Your task to perform on an android device: Do I have any events today? Image 0: 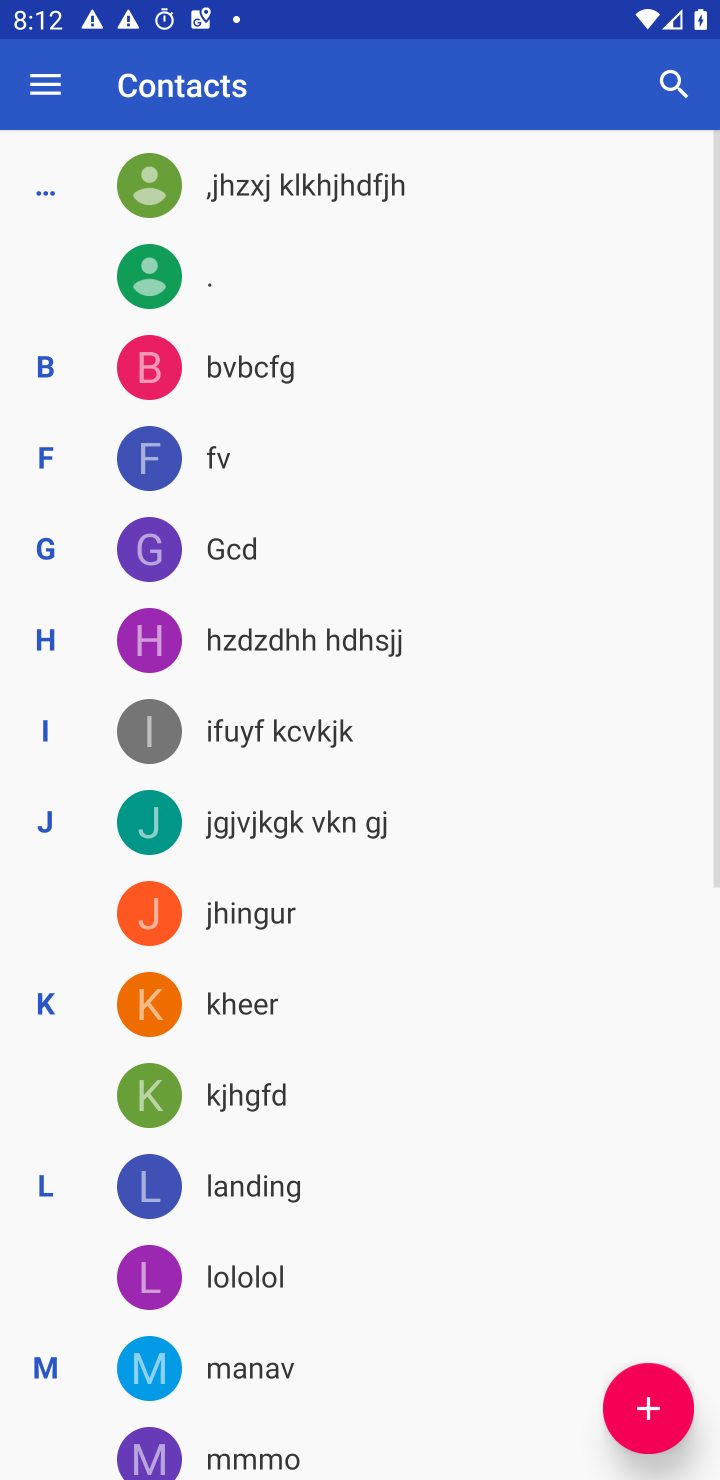
Step 0: press home button
Your task to perform on an android device: Do I have any events today? Image 1: 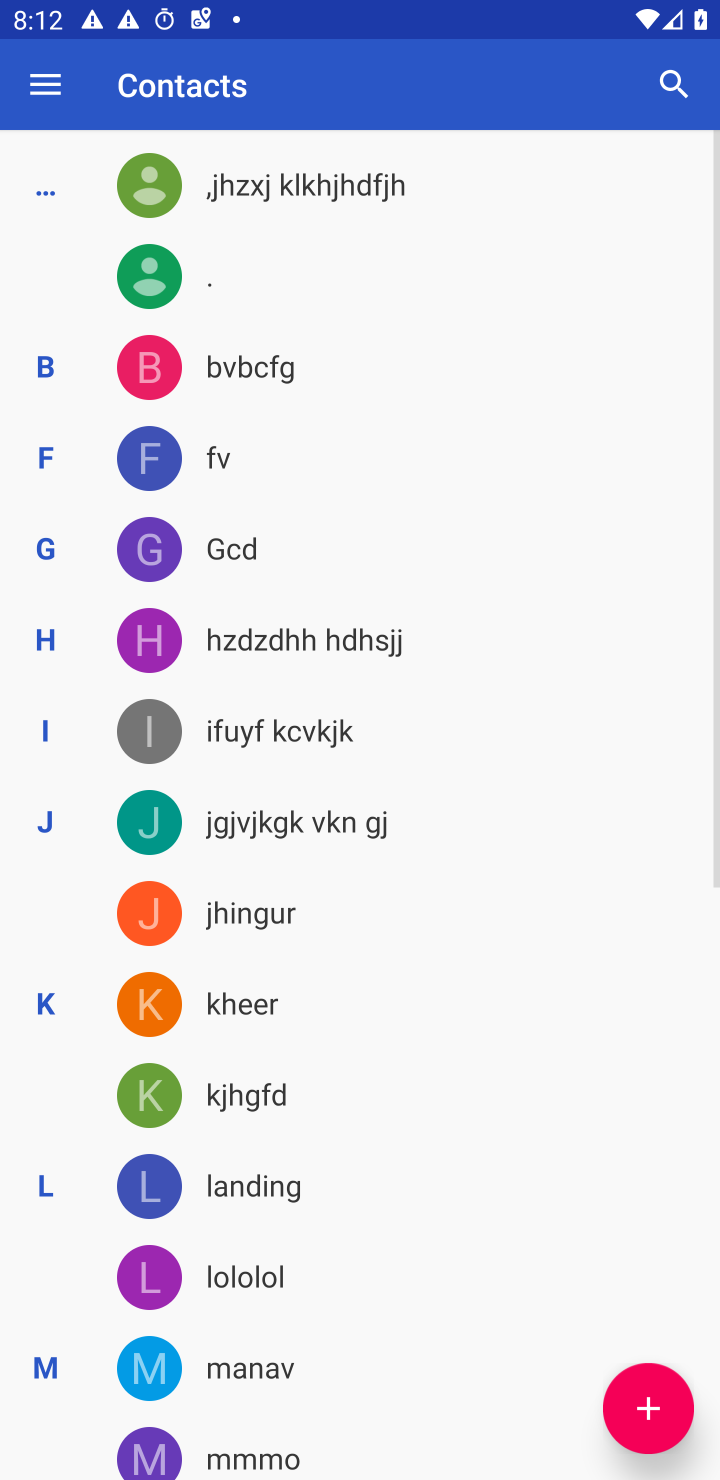
Step 1: drag from (313, 348) to (461, 405)
Your task to perform on an android device: Do I have any events today? Image 2: 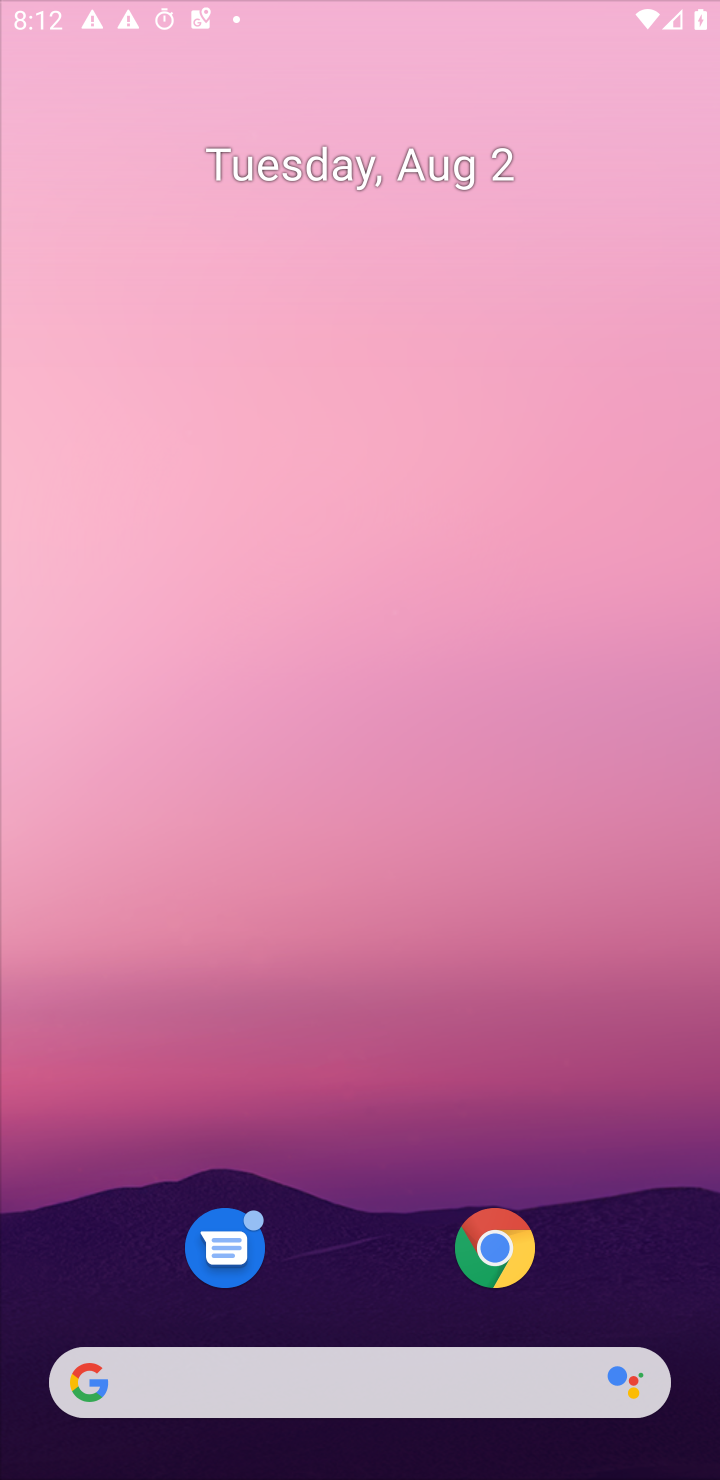
Step 2: press home button
Your task to perform on an android device: Do I have any events today? Image 3: 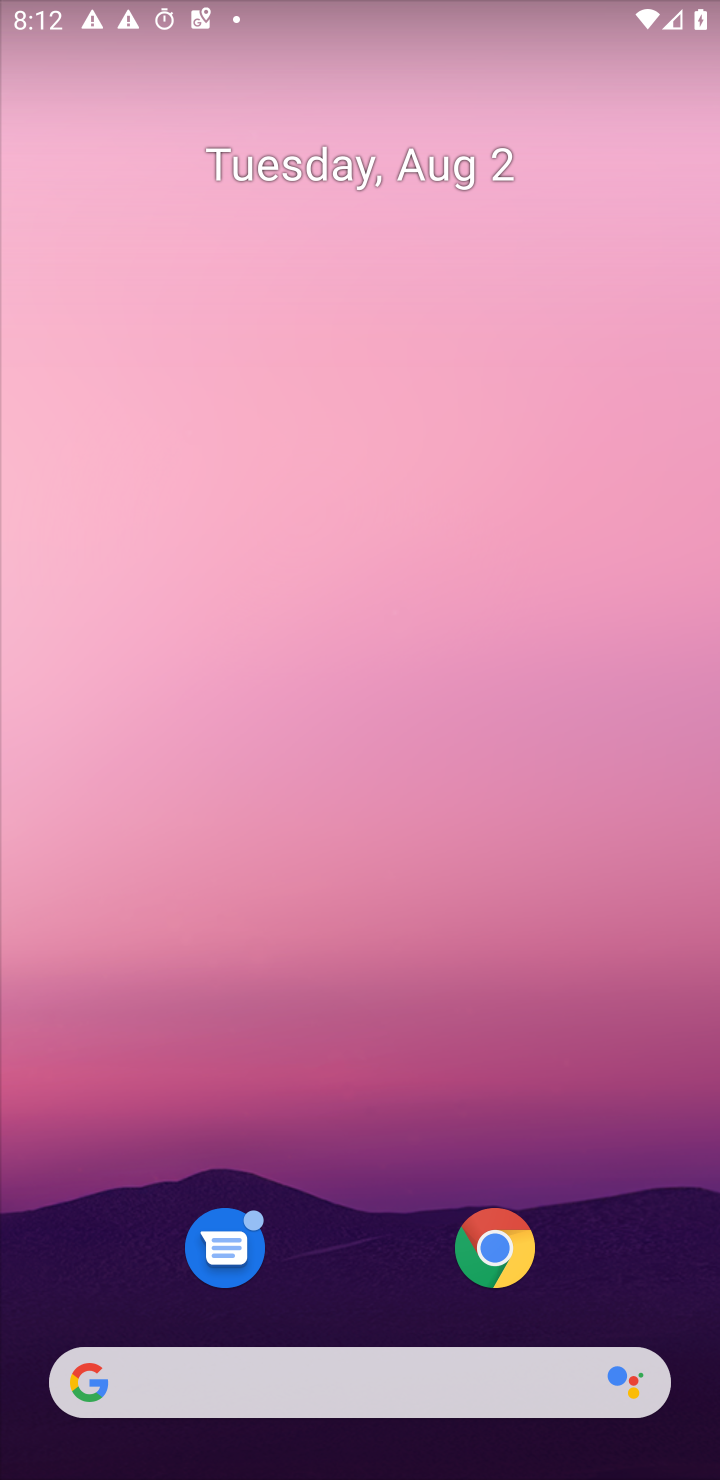
Step 3: drag from (312, 1304) to (406, 198)
Your task to perform on an android device: Do I have any events today? Image 4: 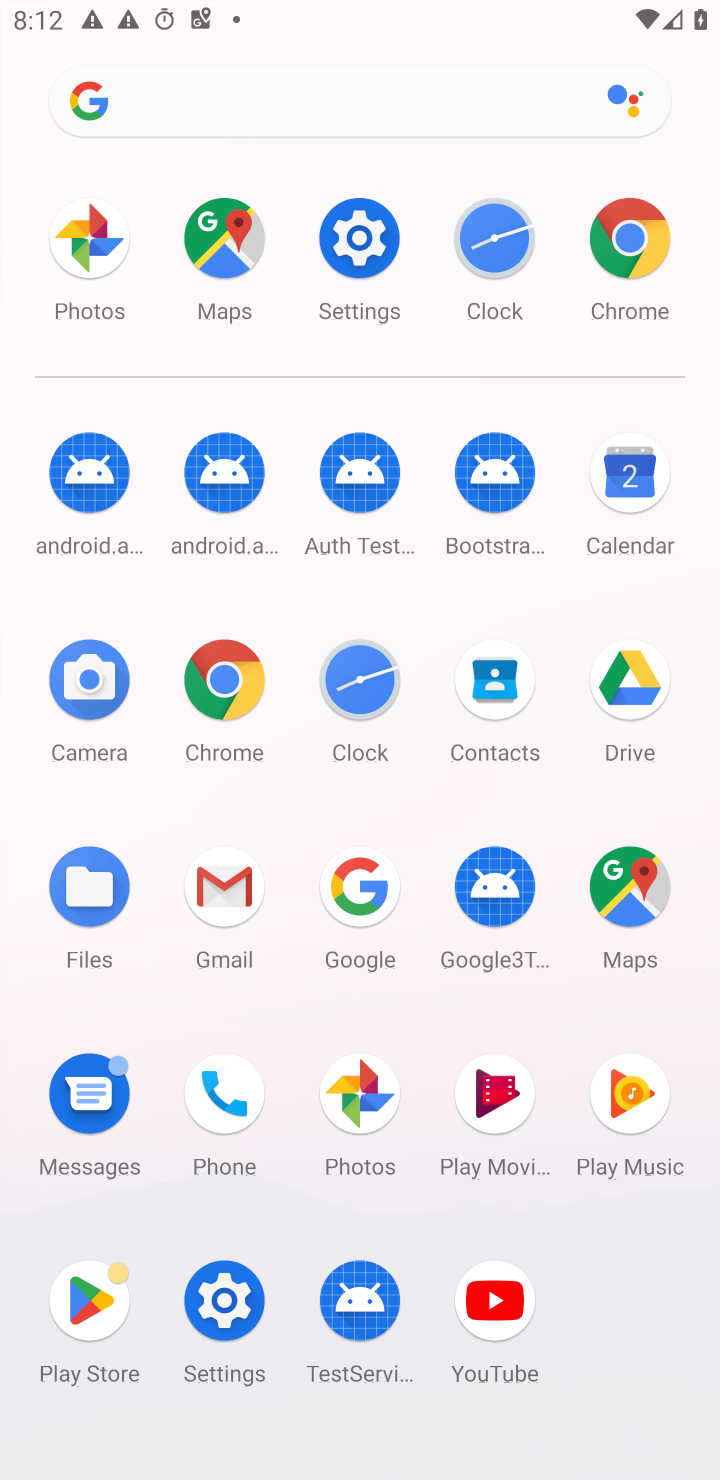
Step 4: click (642, 470)
Your task to perform on an android device: Do I have any events today? Image 5: 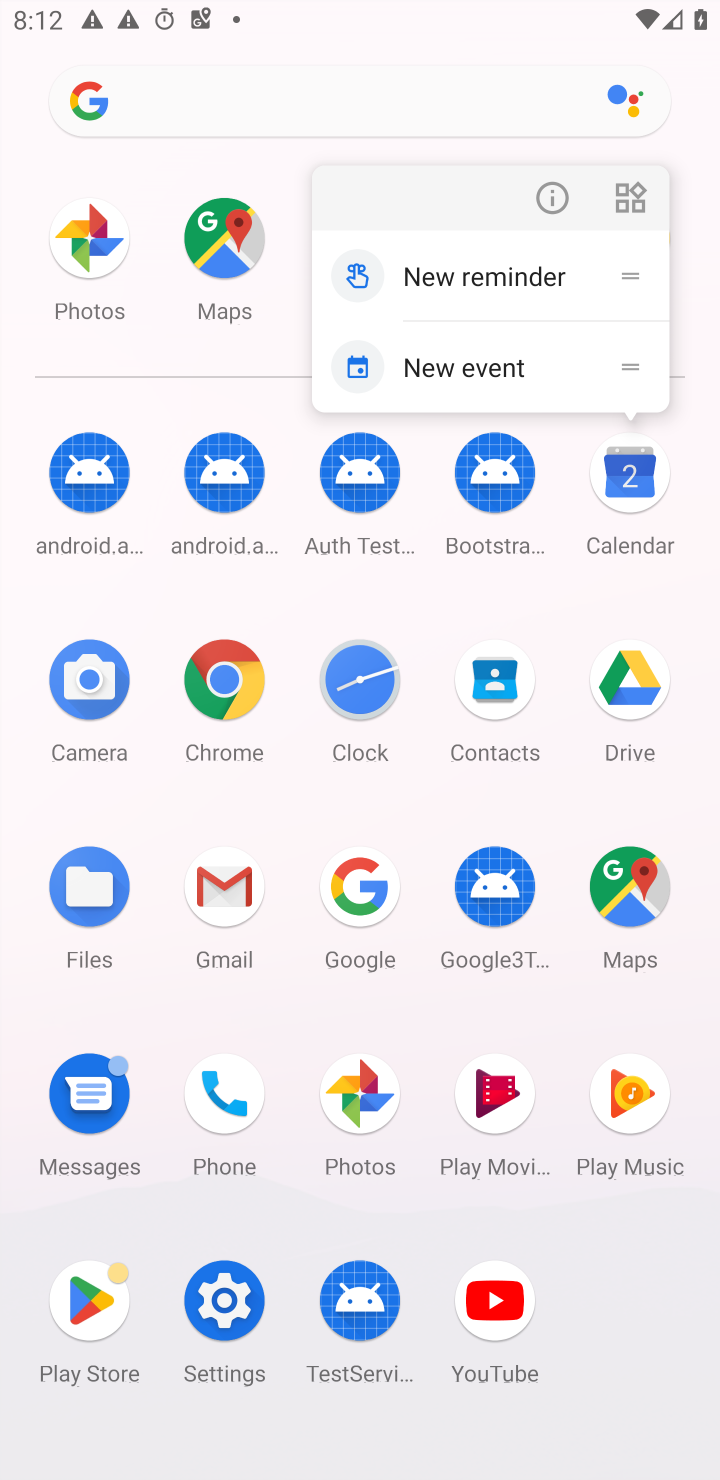
Step 5: click (543, 198)
Your task to perform on an android device: Do I have any events today? Image 6: 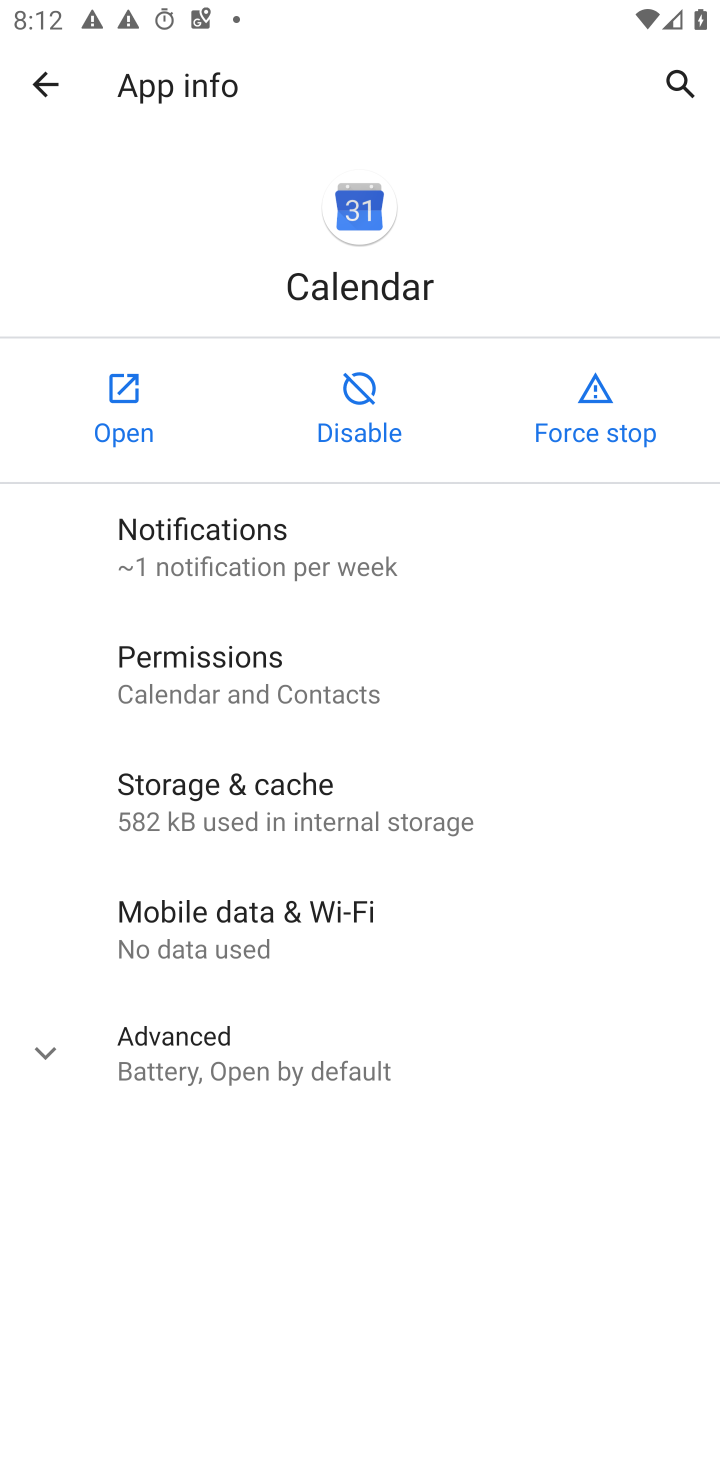
Step 6: click (122, 403)
Your task to perform on an android device: Do I have any events today? Image 7: 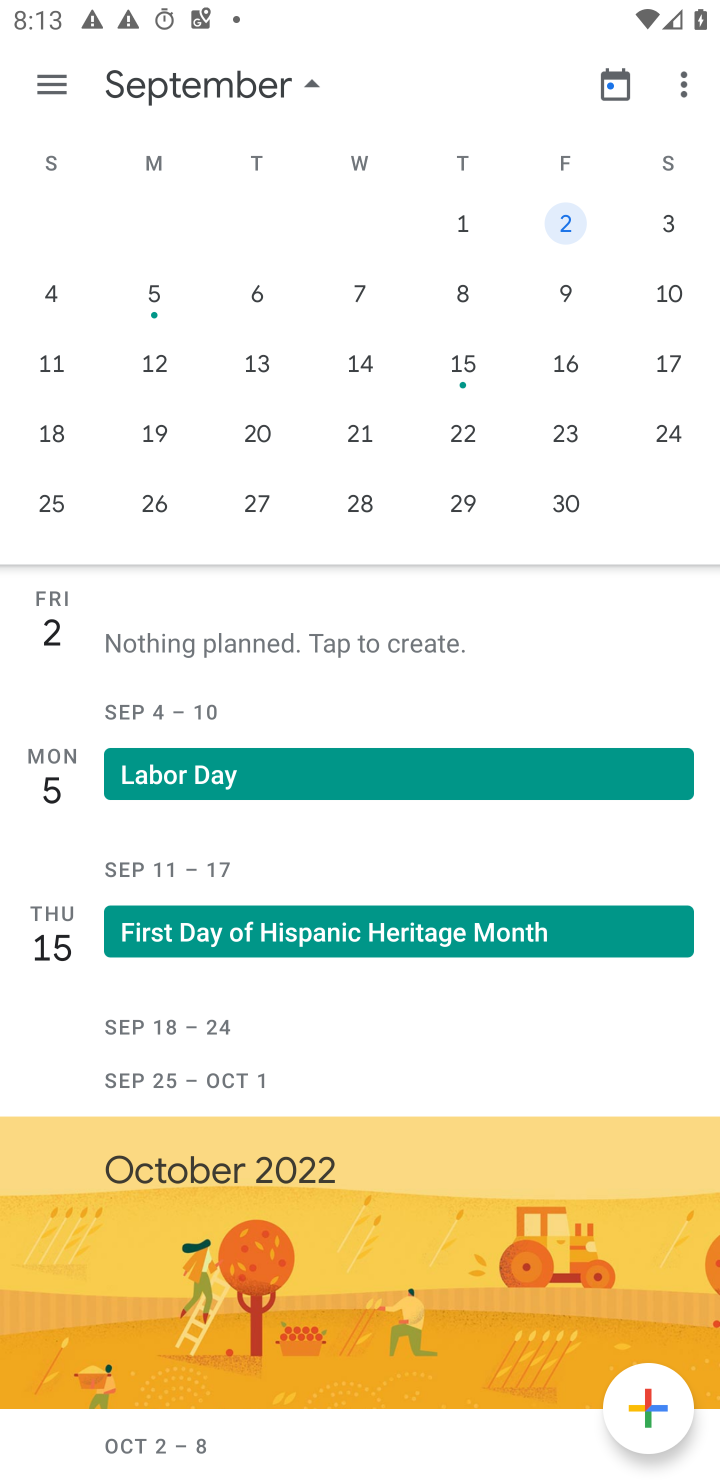
Step 7: click (239, 89)
Your task to perform on an android device: Do I have any events today? Image 8: 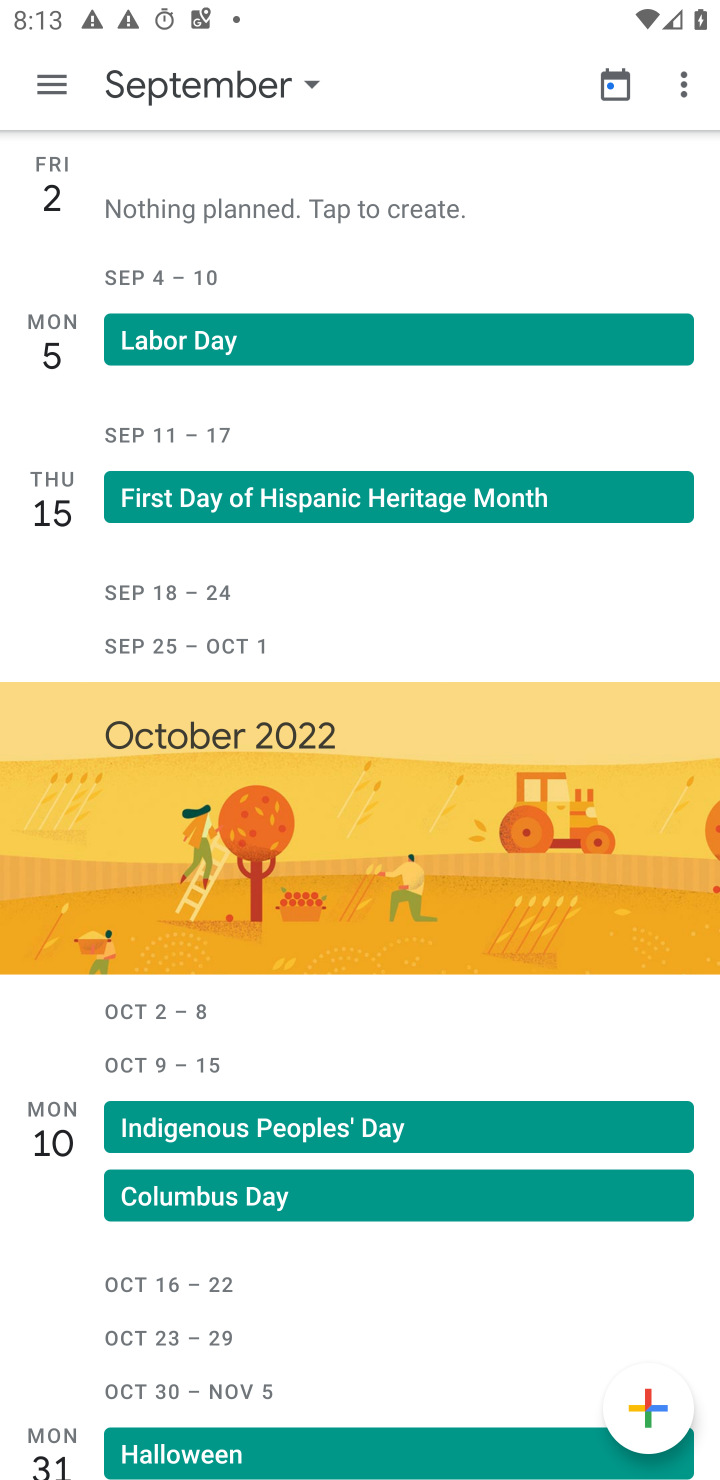
Step 8: click (268, 89)
Your task to perform on an android device: Do I have any events today? Image 9: 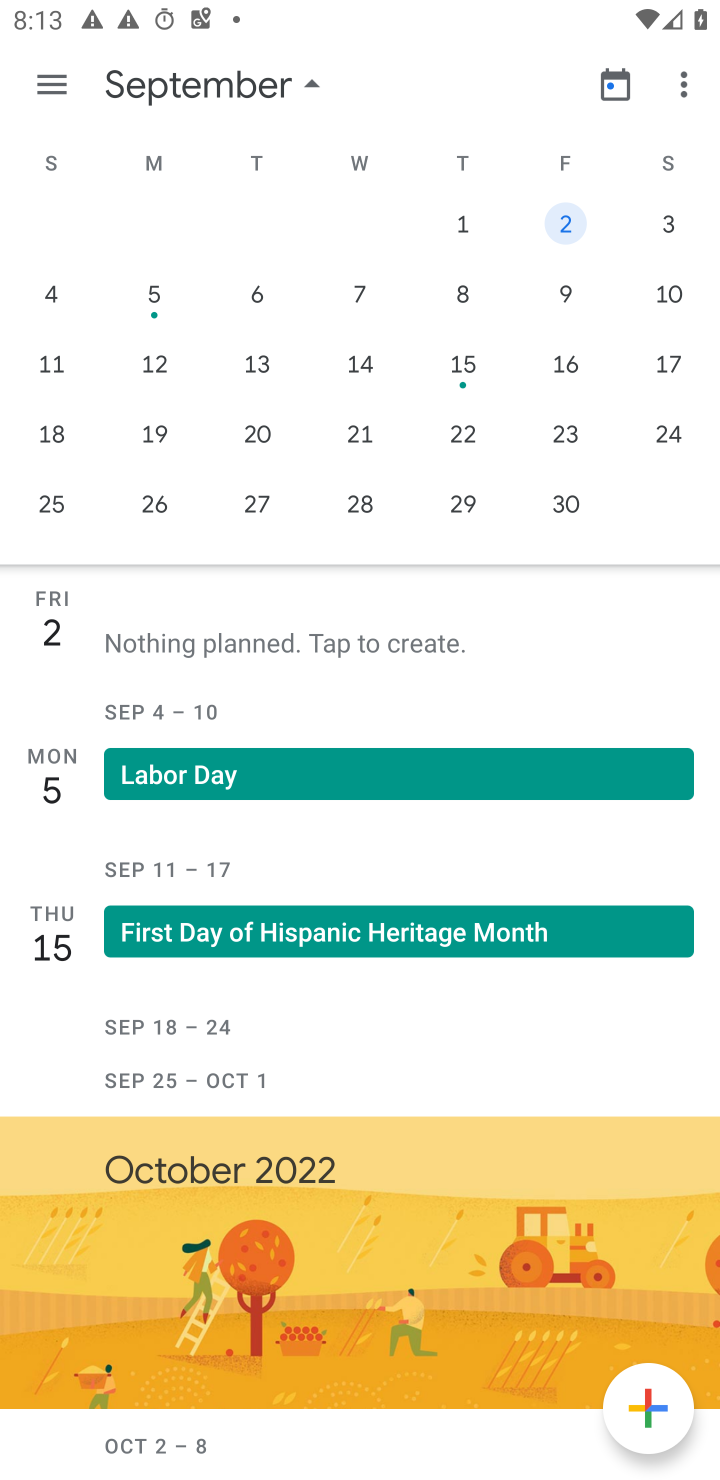
Step 9: drag from (242, 412) to (711, 280)
Your task to perform on an android device: Do I have any events today? Image 10: 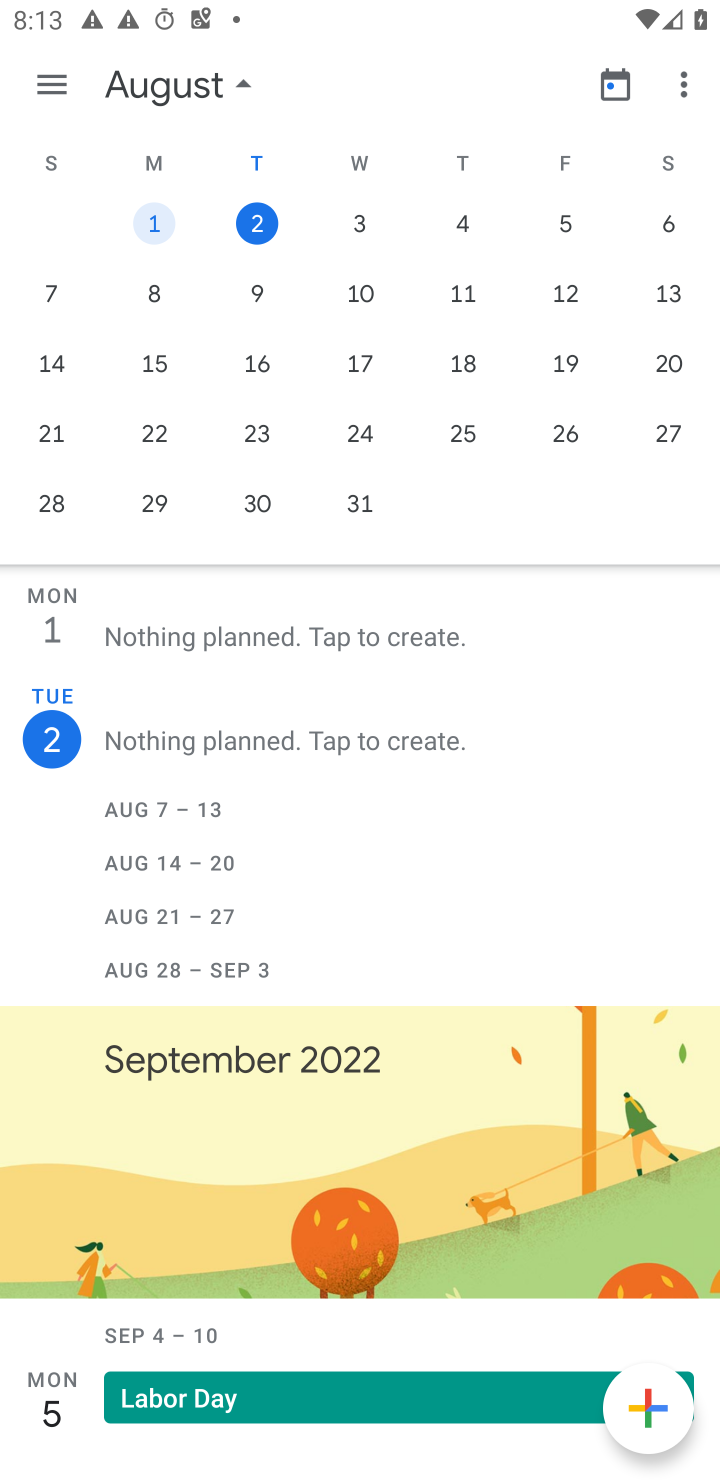
Step 10: click (261, 212)
Your task to perform on an android device: Do I have any events today? Image 11: 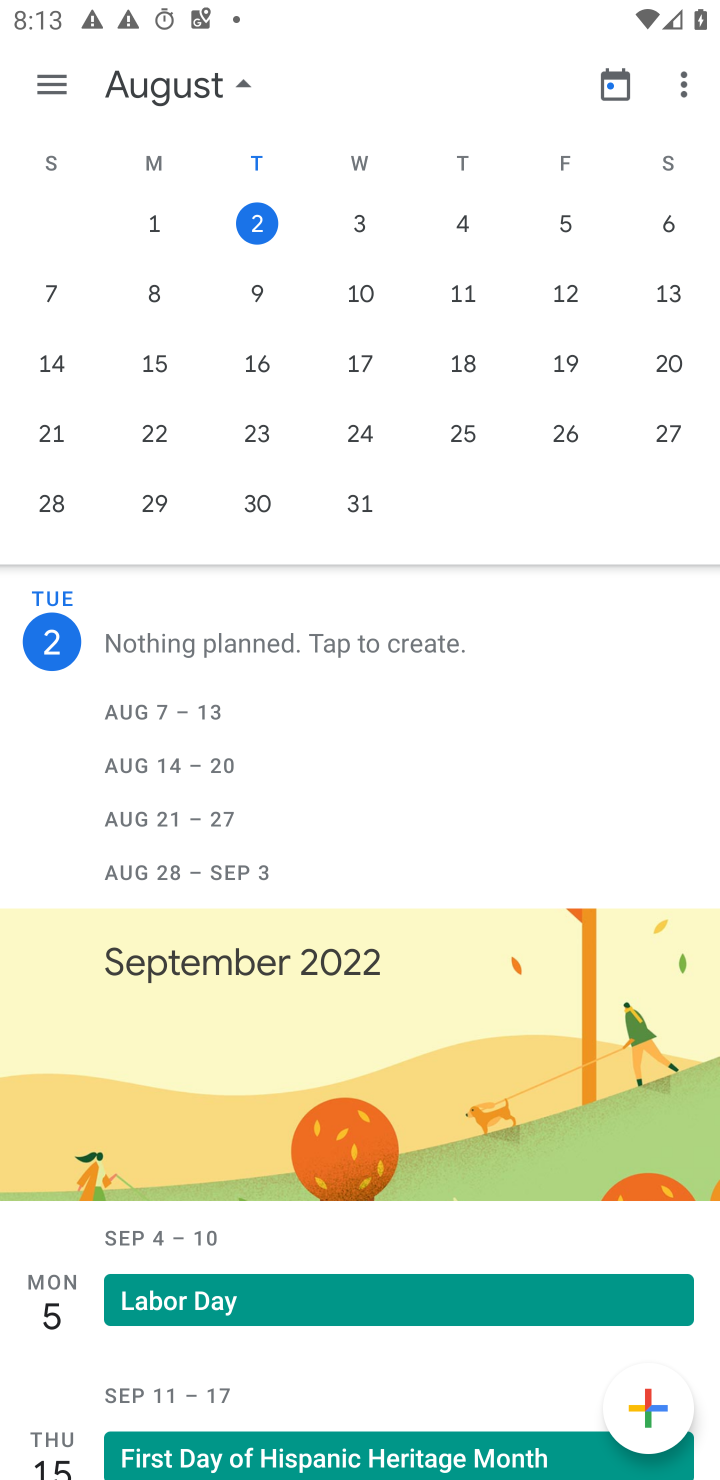
Step 11: task complete